Your task to perform on an android device: see sites visited before in the chrome app Image 0: 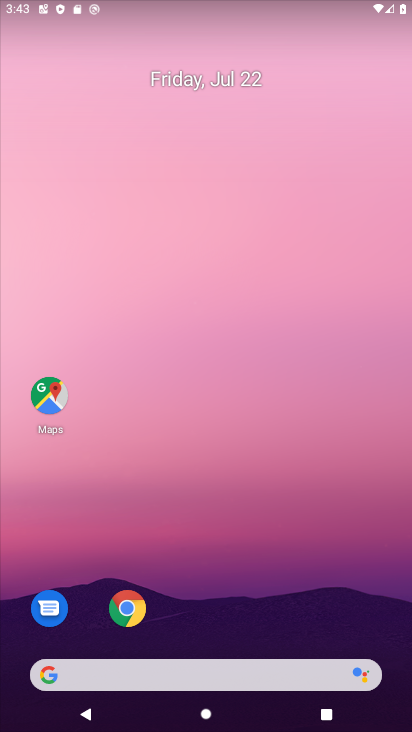
Step 0: drag from (232, 726) to (236, 64)
Your task to perform on an android device: see sites visited before in the chrome app Image 1: 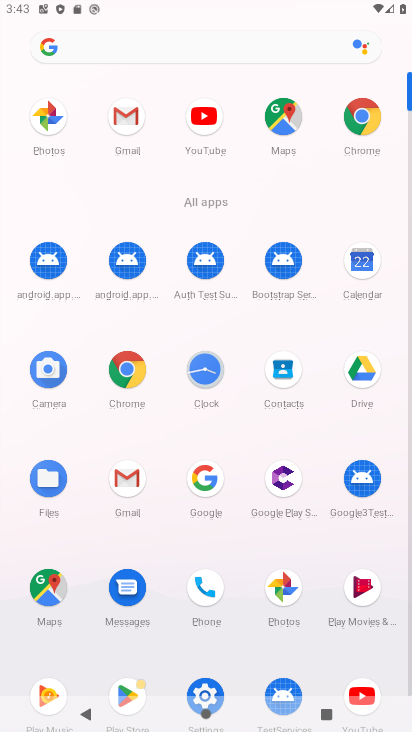
Step 1: click (367, 118)
Your task to perform on an android device: see sites visited before in the chrome app Image 2: 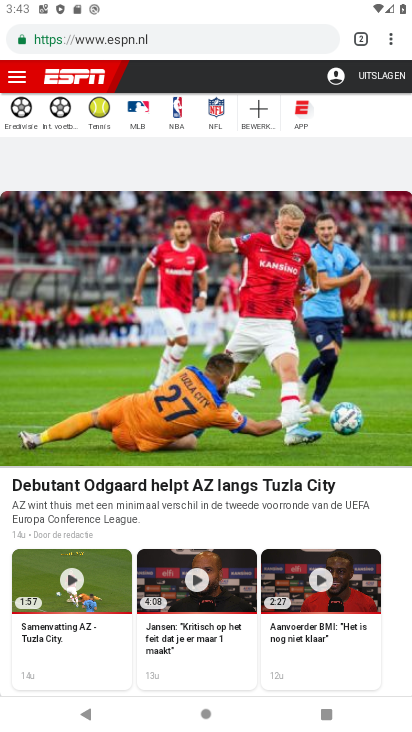
Step 2: click (393, 42)
Your task to perform on an android device: see sites visited before in the chrome app Image 3: 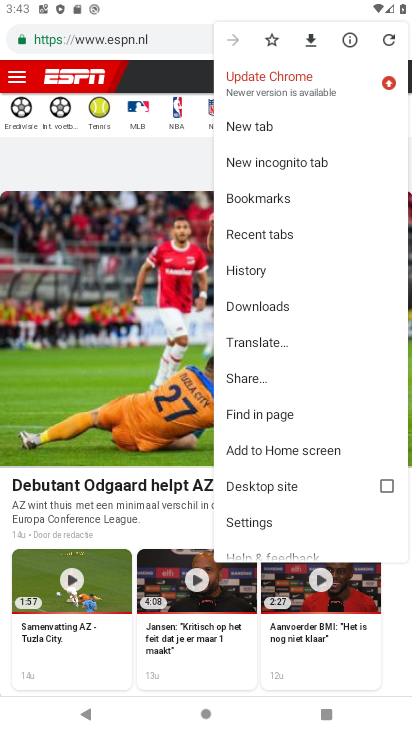
Step 3: click (252, 231)
Your task to perform on an android device: see sites visited before in the chrome app Image 4: 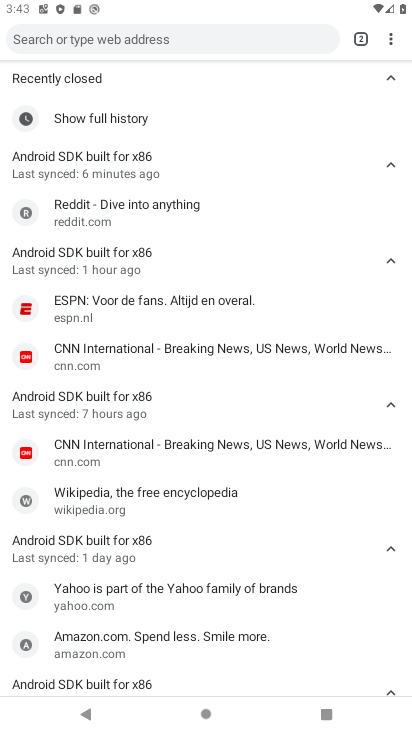
Step 4: task complete